Your task to perform on an android device: Open maps Image 0: 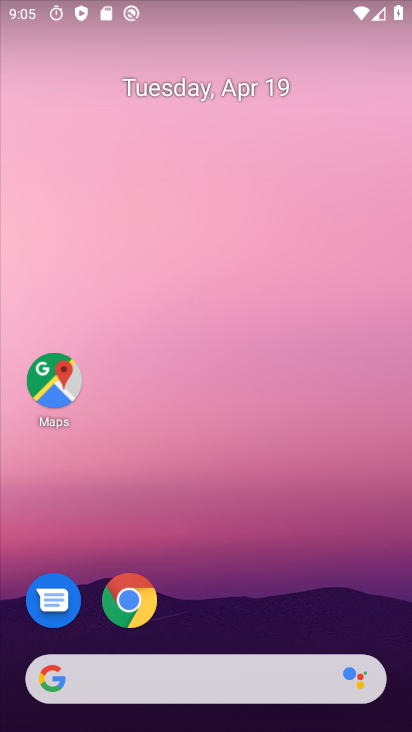
Step 0: click (56, 395)
Your task to perform on an android device: Open maps Image 1: 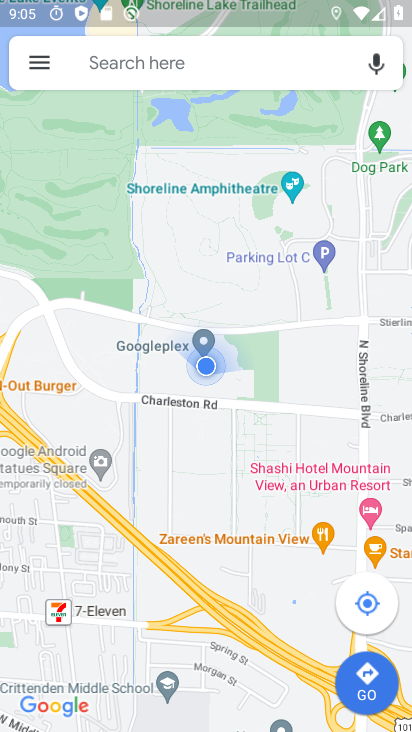
Step 1: task complete